Your task to perform on an android device: Open Google Maps Image 0: 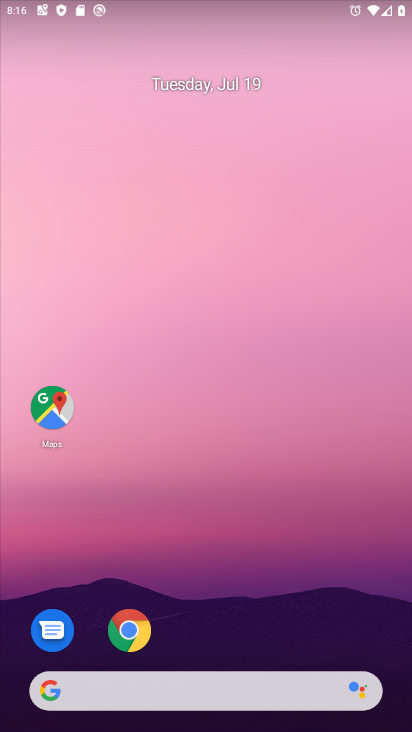
Step 0: click (57, 405)
Your task to perform on an android device: Open Google Maps Image 1: 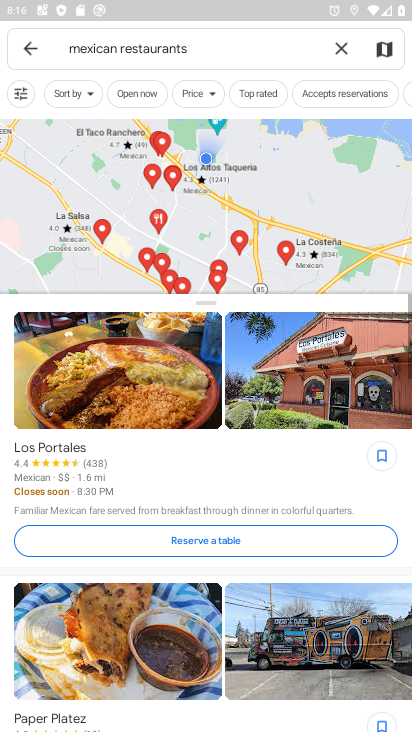
Step 1: task complete